Your task to perform on an android device: turn off sleep mode Image 0: 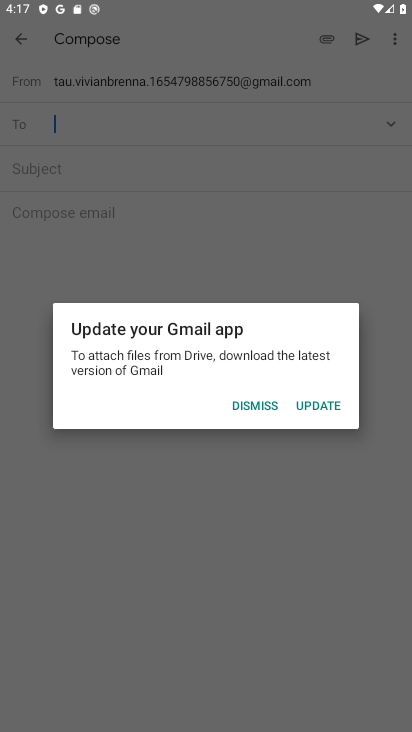
Step 0: press back button
Your task to perform on an android device: turn off sleep mode Image 1: 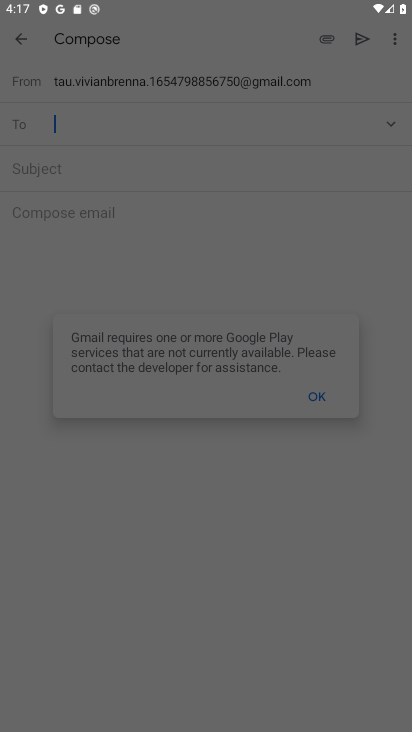
Step 1: press back button
Your task to perform on an android device: turn off sleep mode Image 2: 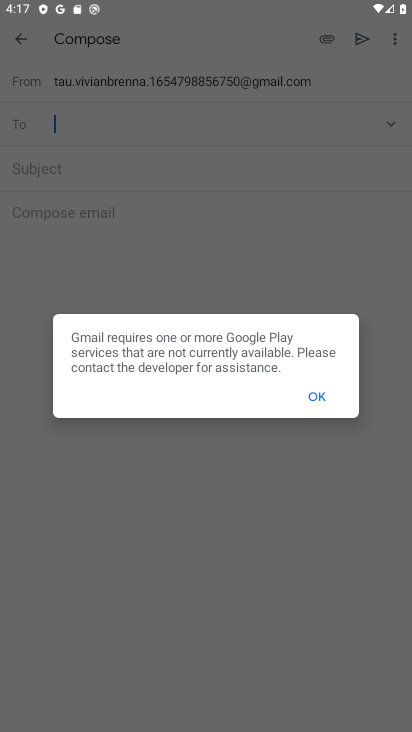
Step 2: press back button
Your task to perform on an android device: turn off sleep mode Image 3: 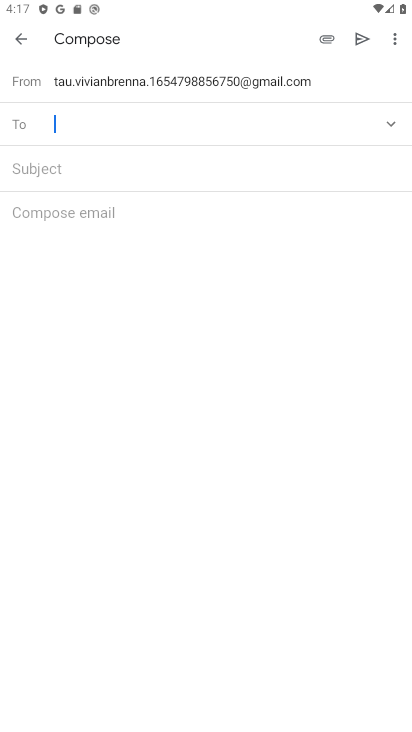
Step 3: press home button
Your task to perform on an android device: turn off sleep mode Image 4: 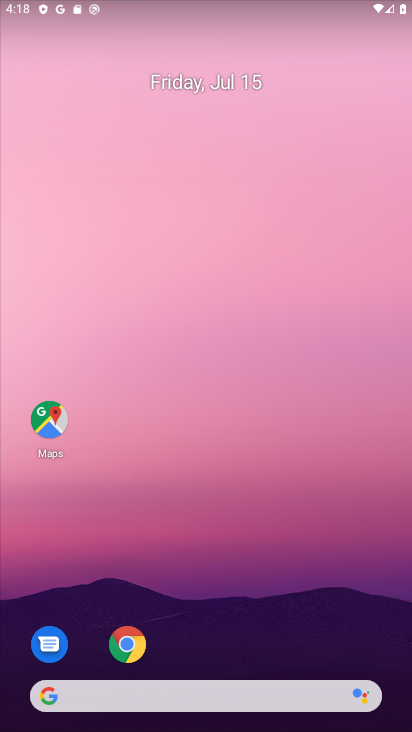
Step 4: drag from (144, 403) to (114, 260)
Your task to perform on an android device: turn off sleep mode Image 5: 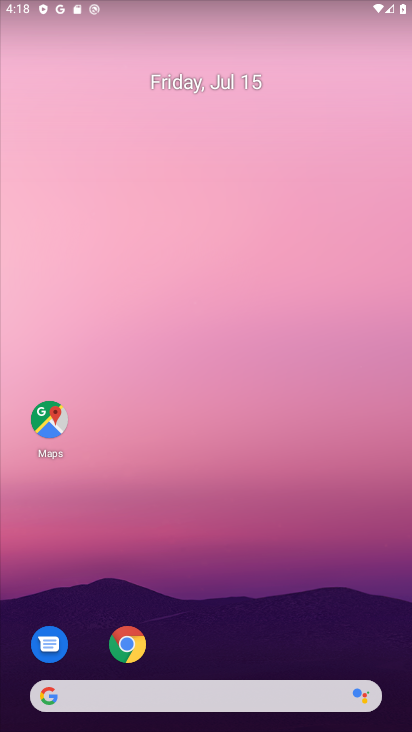
Step 5: drag from (242, 606) to (204, 73)
Your task to perform on an android device: turn off sleep mode Image 6: 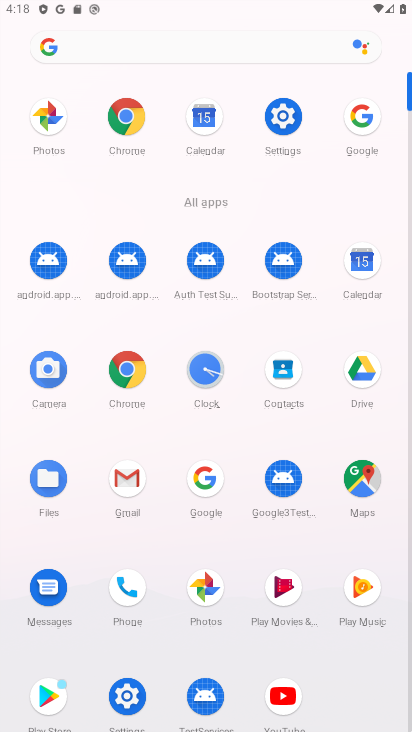
Step 6: click (296, 131)
Your task to perform on an android device: turn off sleep mode Image 7: 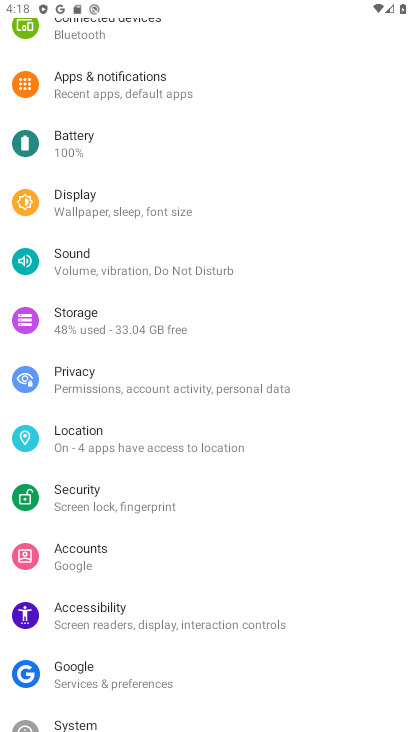
Step 7: click (128, 201)
Your task to perform on an android device: turn off sleep mode Image 8: 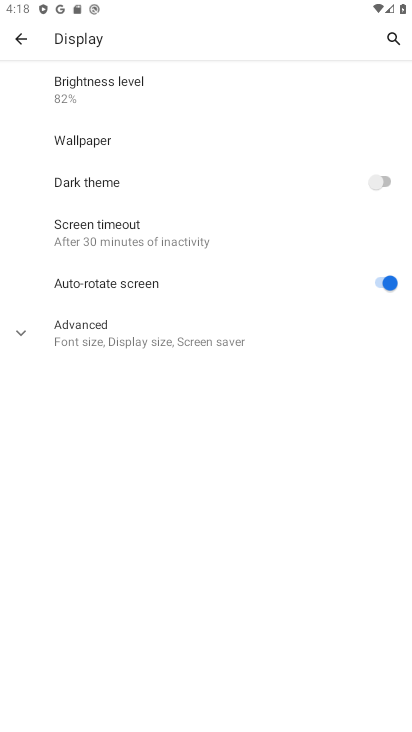
Step 8: task complete